Your task to perform on an android device: check out phone information Image 0: 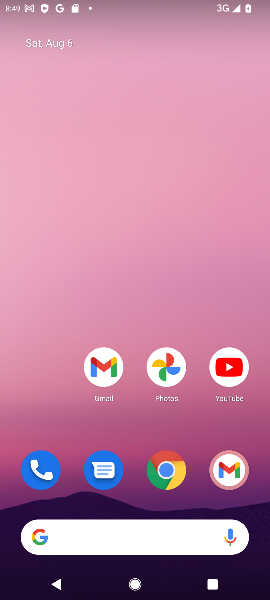
Step 0: drag from (128, 513) to (142, 167)
Your task to perform on an android device: check out phone information Image 1: 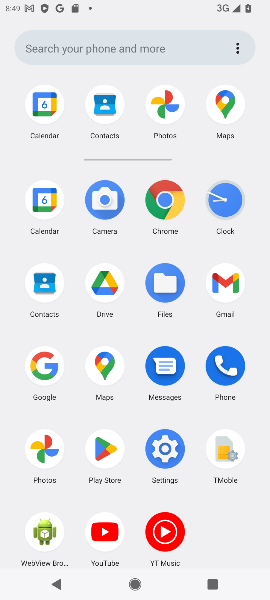
Step 1: click (172, 463)
Your task to perform on an android device: check out phone information Image 2: 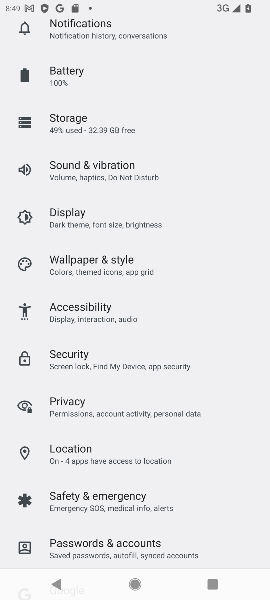
Step 2: drag from (153, 418) to (166, 237)
Your task to perform on an android device: check out phone information Image 3: 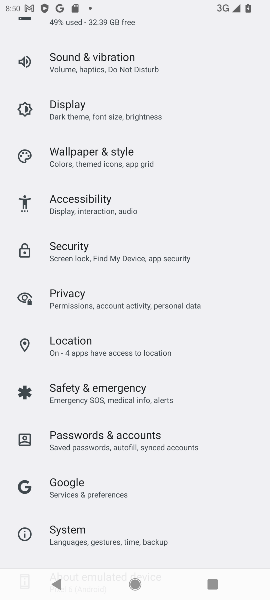
Step 3: drag from (93, 534) to (97, 205)
Your task to perform on an android device: check out phone information Image 4: 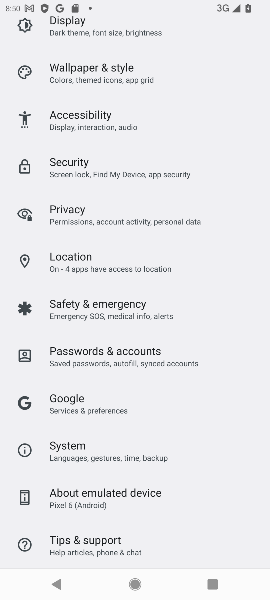
Step 4: drag from (110, 541) to (102, 150)
Your task to perform on an android device: check out phone information Image 5: 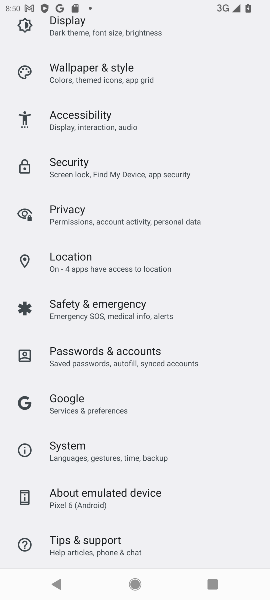
Step 5: click (106, 505)
Your task to perform on an android device: check out phone information Image 6: 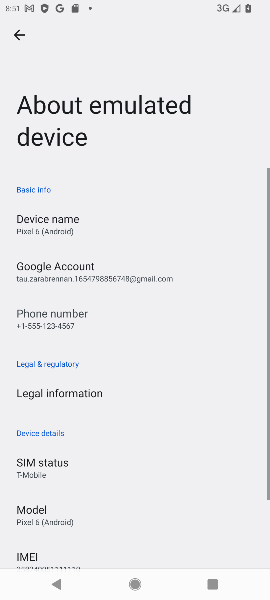
Step 6: task complete